Your task to perform on an android device: Clear the shopping cart on costco. Add alienware area 51 to the cart on costco Image 0: 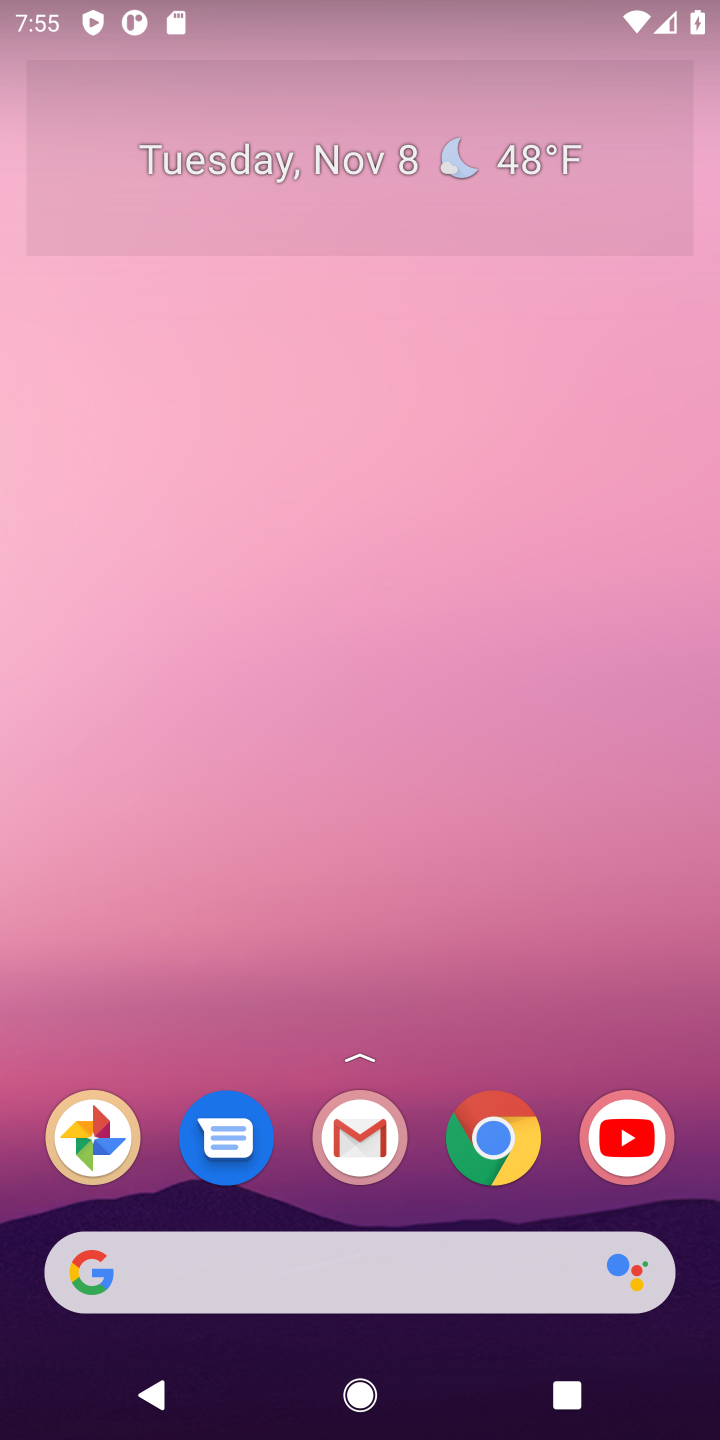
Step 0: click (494, 1144)
Your task to perform on an android device: Clear the shopping cart on costco. Add alienware area 51 to the cart on costco Image 1: 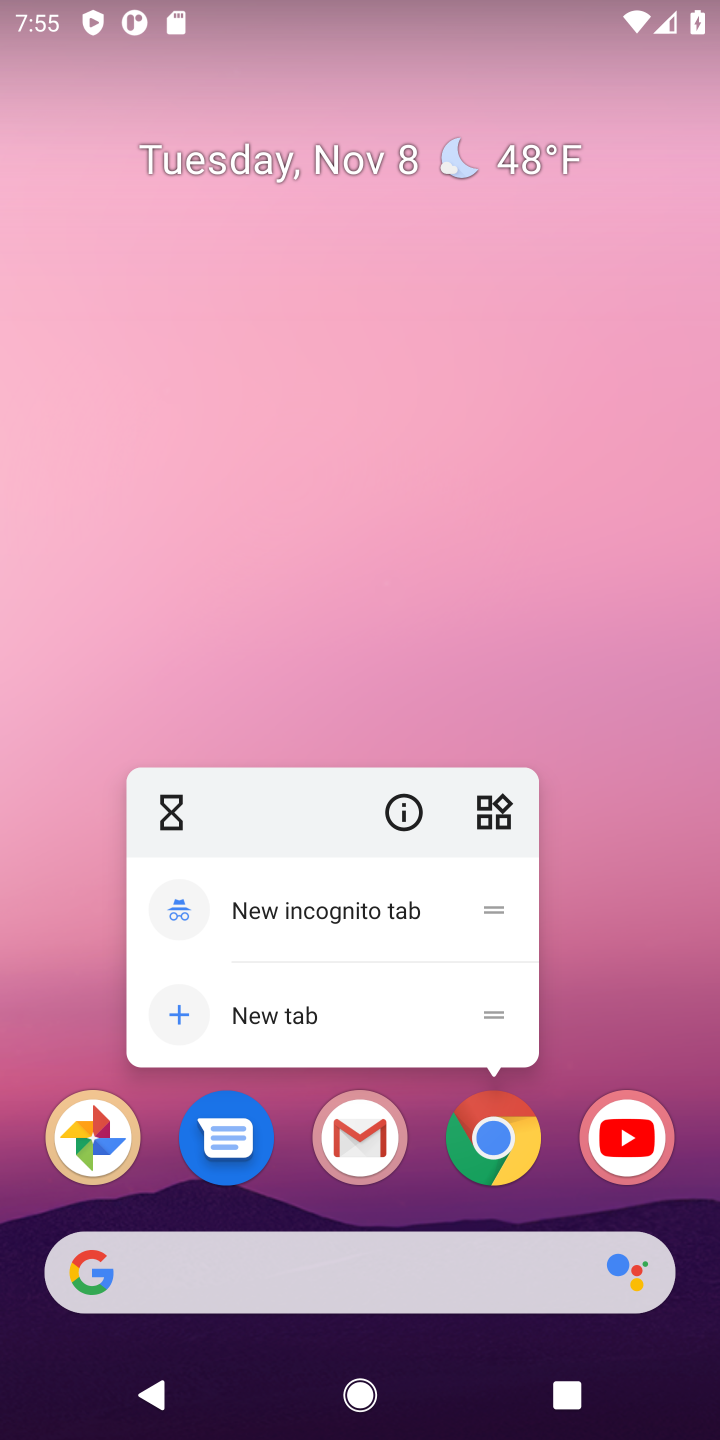
Step 1: click (491, 1149)
Your task to perform on an android device: Clear the shopping cart on costco. Add alienware area 51 to the cart on costco Image 2: 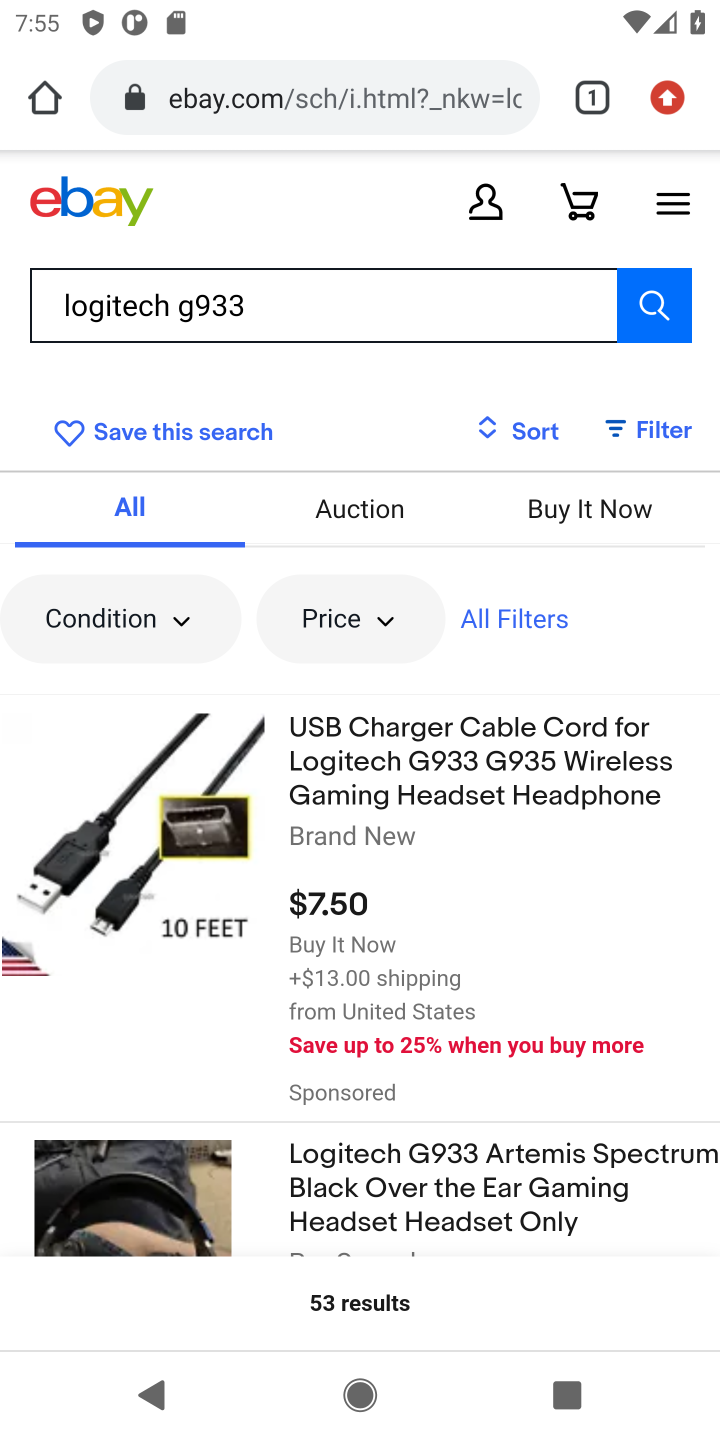
Step 2: click (407, 86)
Your task to perform on an android device: Clear the shopping cart on costco. Add alienware area 51 to the cart on costco Image 3: 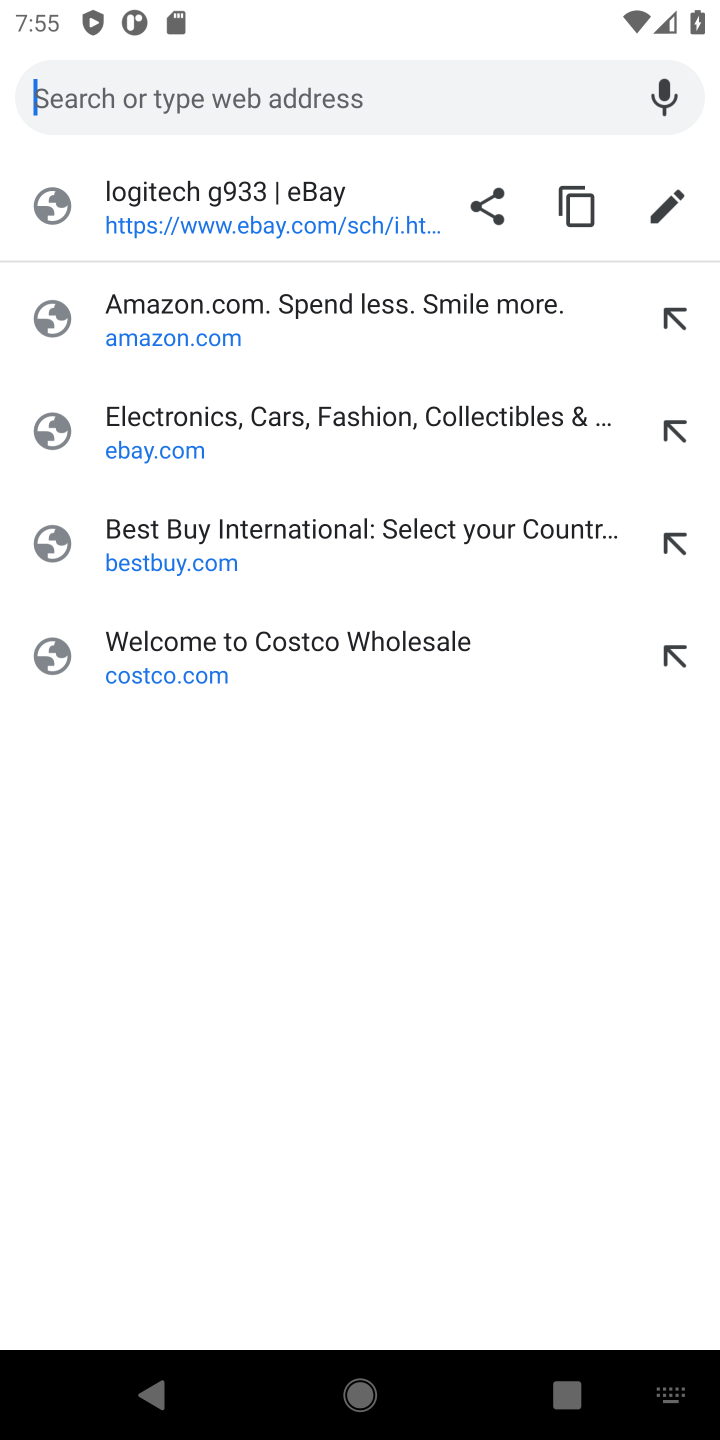
Step 3: type "costco"
Your task to perform on an android device: Clear the shopping cart on costco. Add alienware area 51 to the cart on costco Image 4: 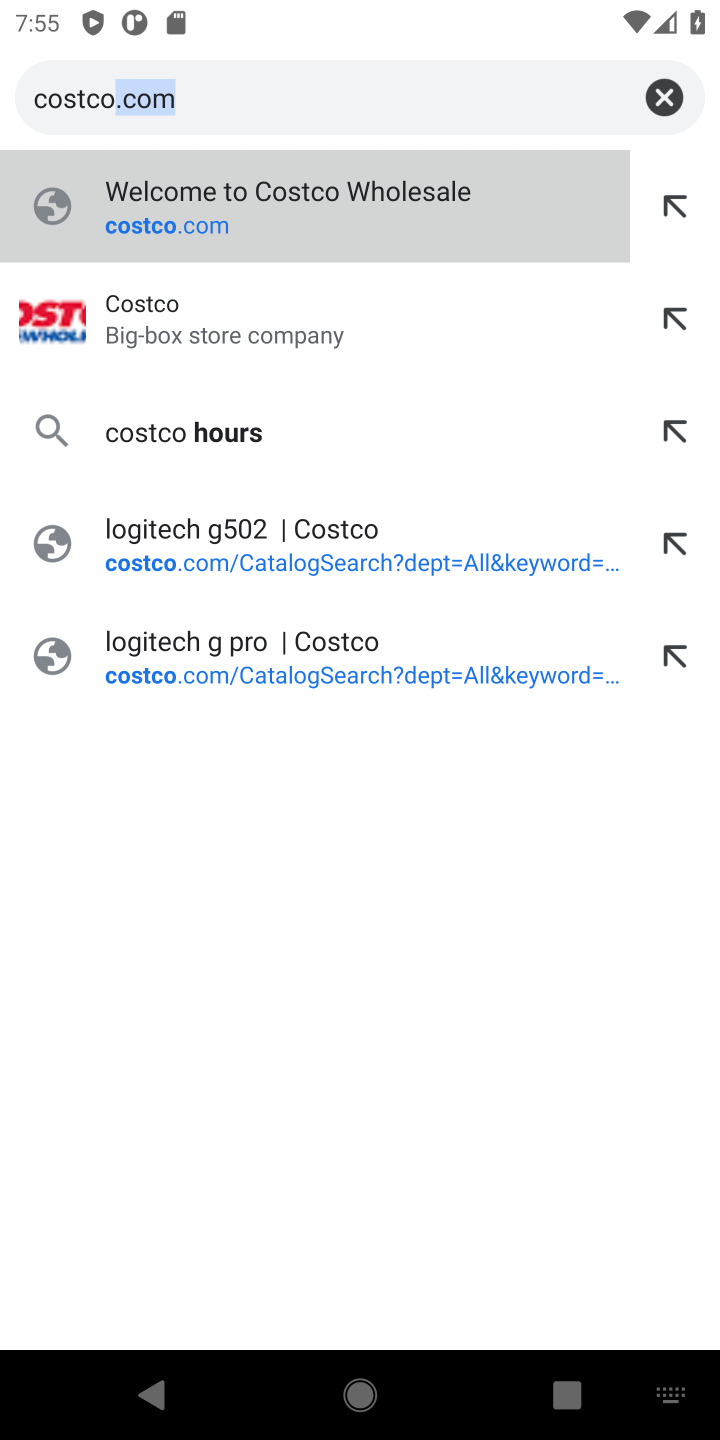
Step 4: press enter
Your task to perform on an android device: Clear the shopping cart on costco. Add alienware area 51 to the cart on costco Image 5: 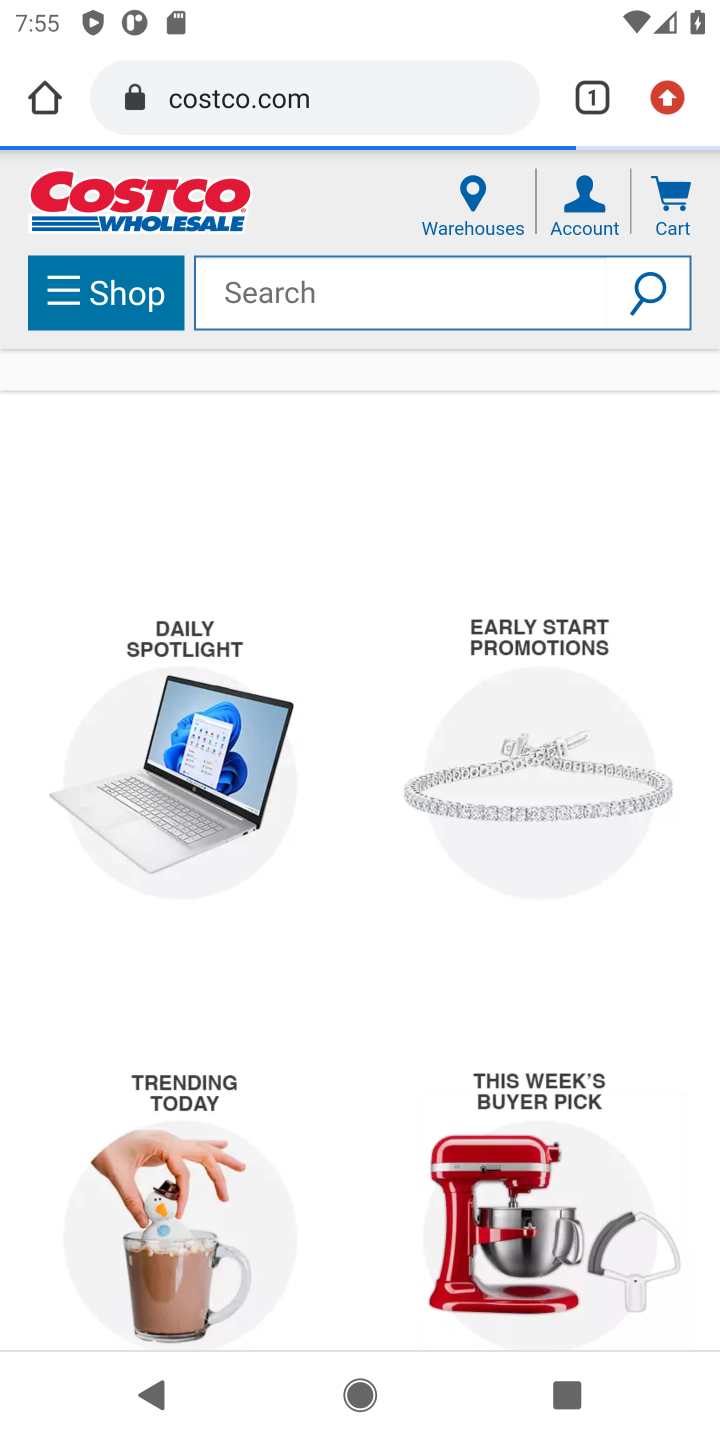
Step 5: click (382, 296)
Your task to perform on an android device: Clear the shopping cart on costco. Add alienware area 51 to the cart on costco Image 6: 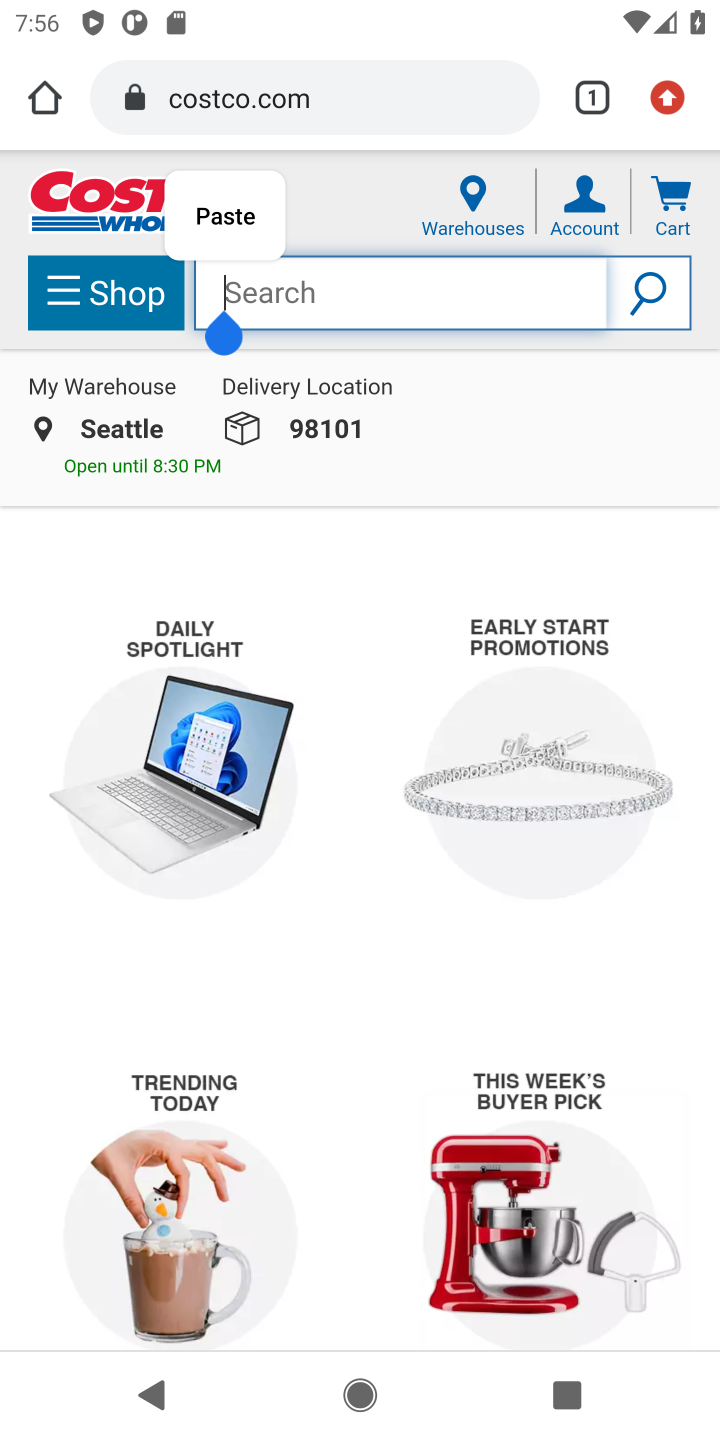
Step 6: type "alienware area 51"
Your task to perform on an android device: Clear the shopping cart on costco. Add alienware area 51 to the cart on costco Image 7: 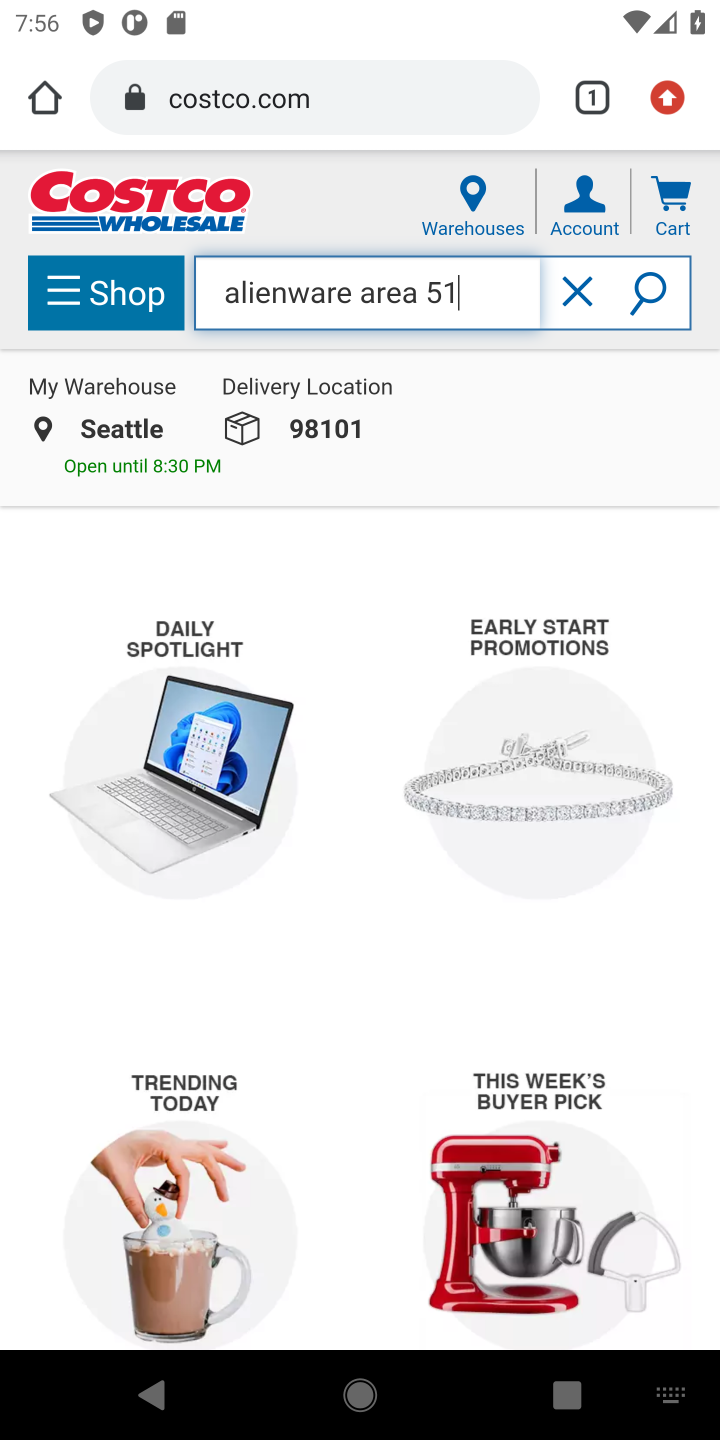
Step 7: press enter
Your task to perform on an android device: Clear the shopping cart on costco. Add alienware area 51 to the cart on costco Image 8: 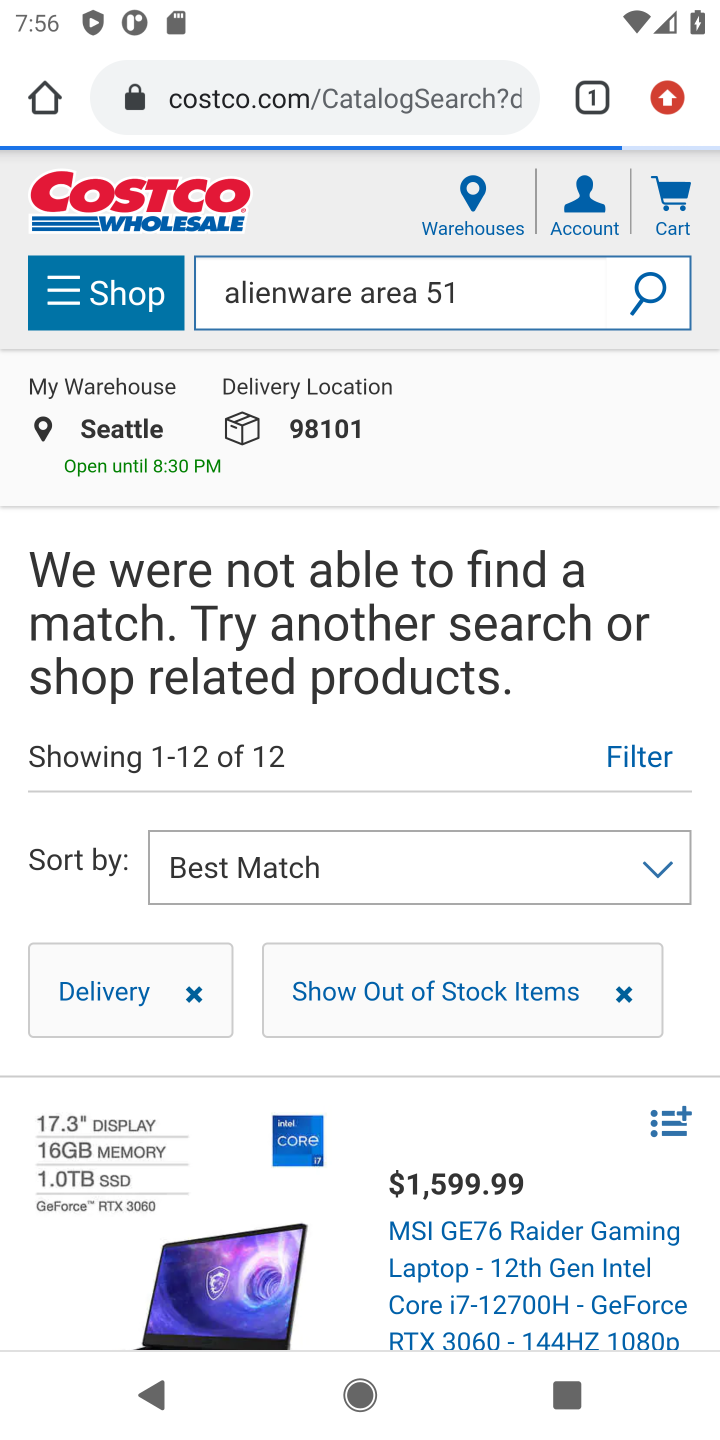
Step 8: task complete